Your task to perform on an android device: What's the news in Vietnam? Image 0: 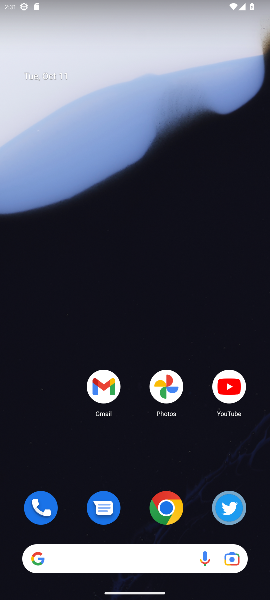
Step 0: click (171, 512)
Your task to perform on an android device: What's the news in Vietnam? Image 1: 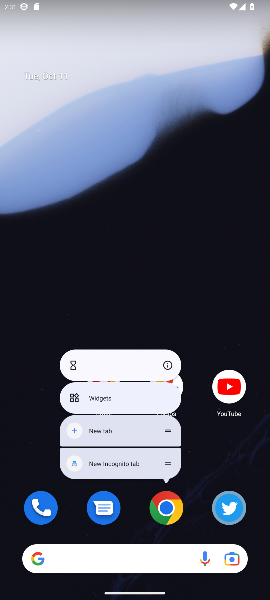
Step 1: click (169, 509)
Your task to perform on an android device: What's the news in Vietnam? Image 2: 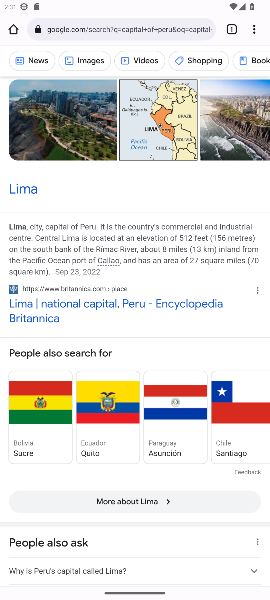
Step 2: click (164, 26)
Your task to perform on an android device: What's the news in Vietnam? Image 3: 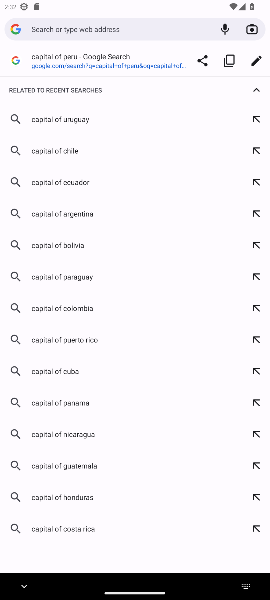
Step 3: type "Vietnam"
Your task to perform on an android device: What's the news in Vietnam? Image 4: 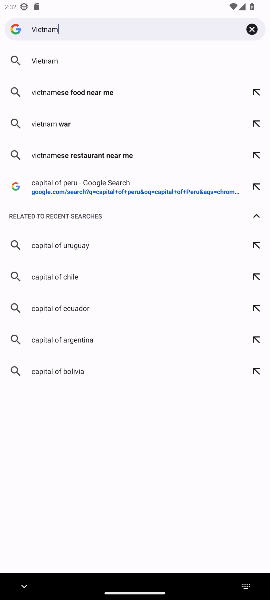
Step 4: type ""
Your task to perform on an android device: What's the news in Vietnam? Image 5: 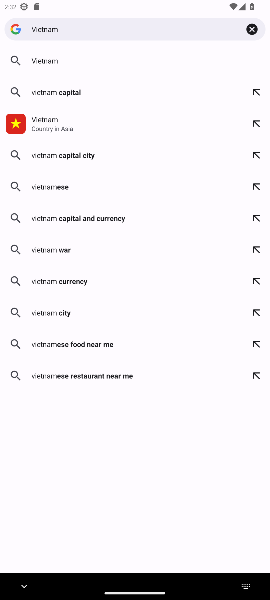
Step 5: press enter
Your task to perform on an android device: What's the news in Vietnam? Image 6: 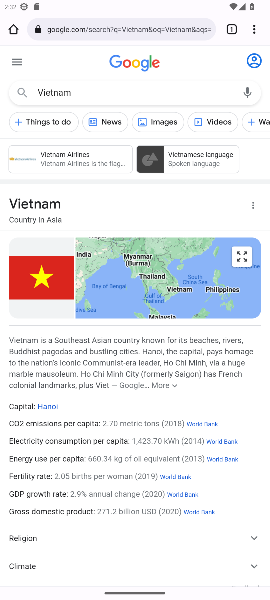
Step 6: click (110, 121)
Your task to perform on an android device: What's the news in Vietnam? Image 7: 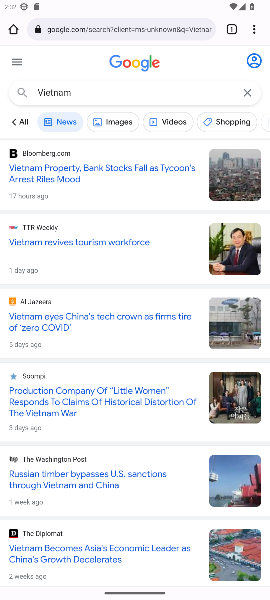
Step 7: task complete